Your task to perform on an android device: turn off sleep mode Image 0: 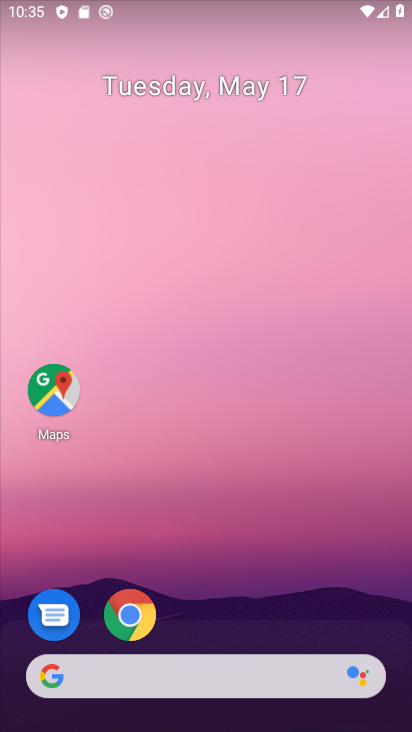
Step 0: drag from (198, 594) to (262, 232)
Your task to perform on an android device: turn off sleep mode Image 1: 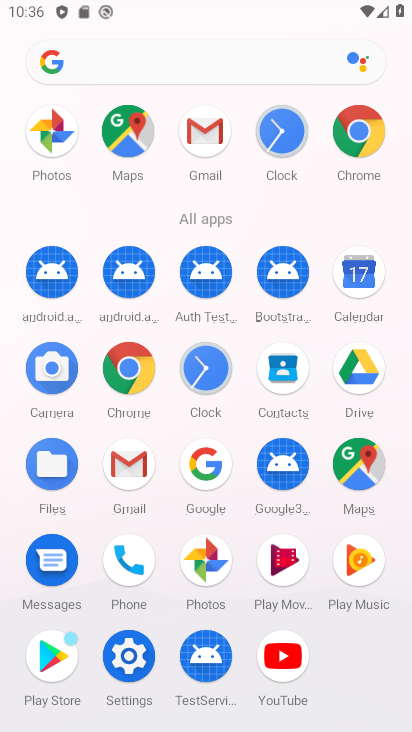
Step 1: click (123, 655)
Your task to perform on an android device: turn off sleep mode Image 2: 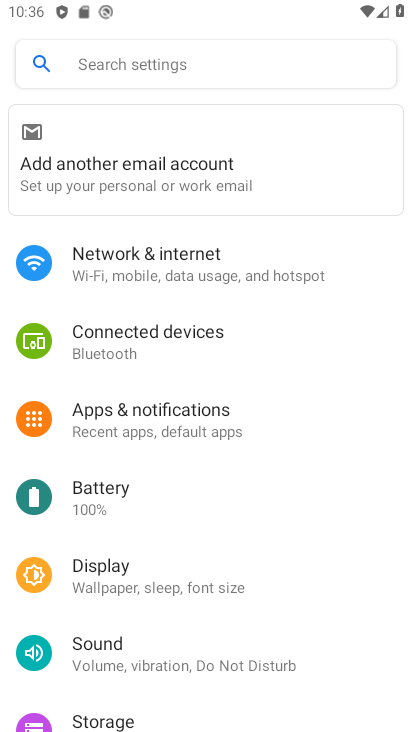
Step 2: click (139, 577)
Your task to perform on an android device: turn off sleep mode Image 3: 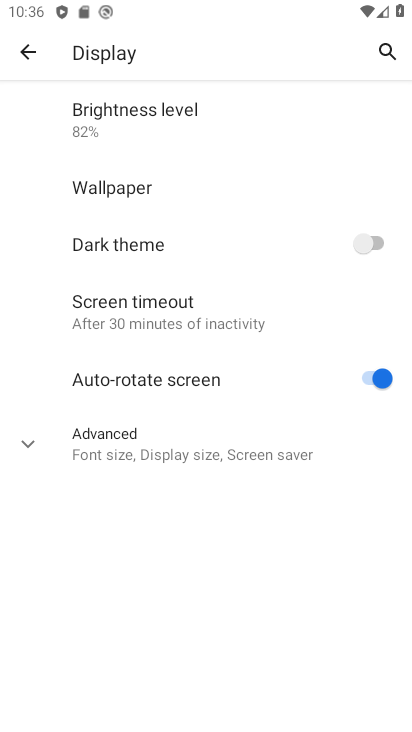
Step 3: task complete